Your task to perform on an android device: Go to location settings Image 0: 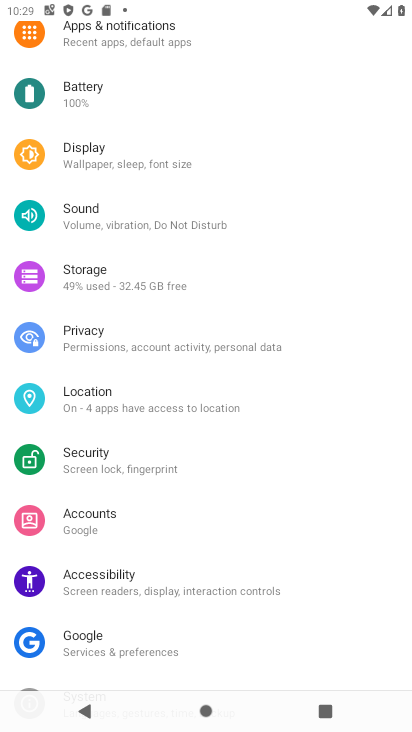
Step 0: press home button
Your task to perform on an android device: Go to location settings Image 1: 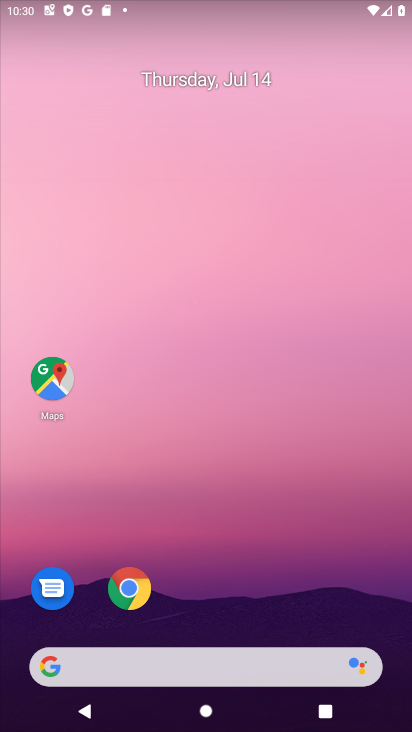
Step 1: drag from (178, 663) to (285, 86)
Your task to perform on an android device: Go to location settings Image 2: 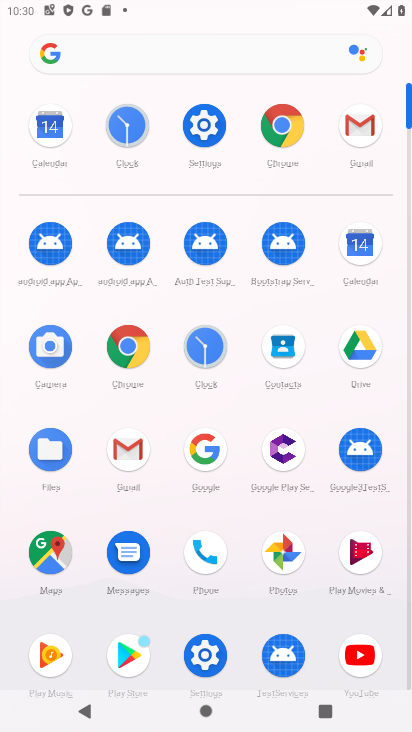
Step 2: click (212, 130)
Your task to perform on an android device: Go to location settings Image 3: 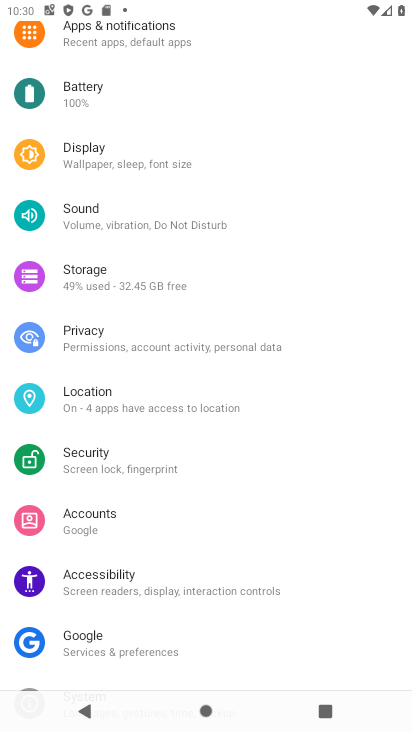
Step 3: click (124, 396)
Your task to perform on an android device: Go to location settings Image 4: 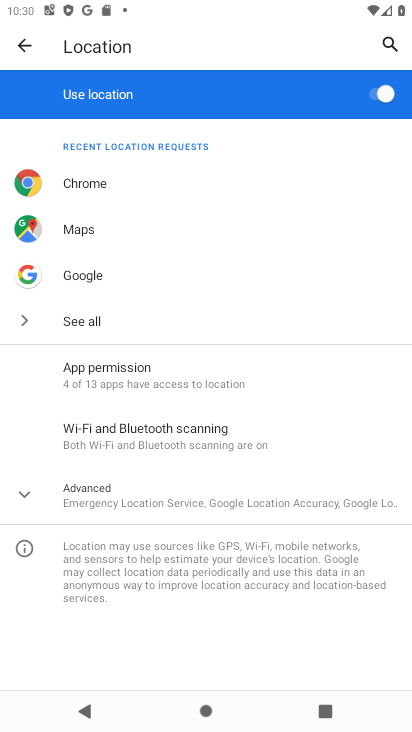
Step 4: task complete